Your task to perform on an android device: open app "Microsoft Outlook" (install if not already installed) Image 0: 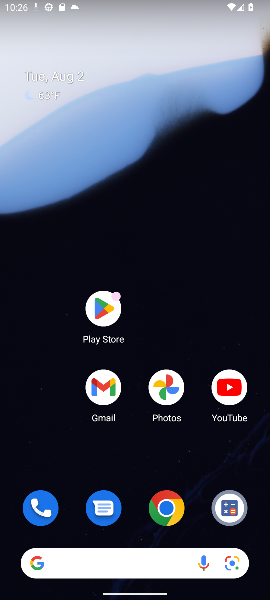
Step 0: click (102, 308)
Your task to perform on an android device: open app "Microsoft Outlook" (install if not already installed) Image 1: 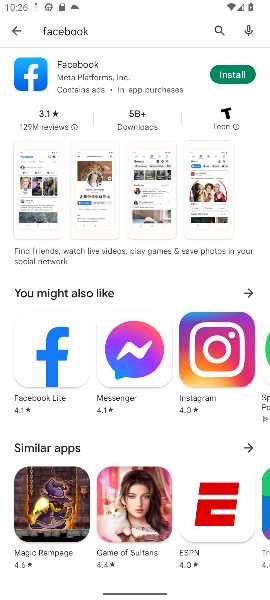
Step 1: click (217, 24)
Your task to perform on an android device: open app "Microsoft Outlook" (install if not already installed) Image 2: 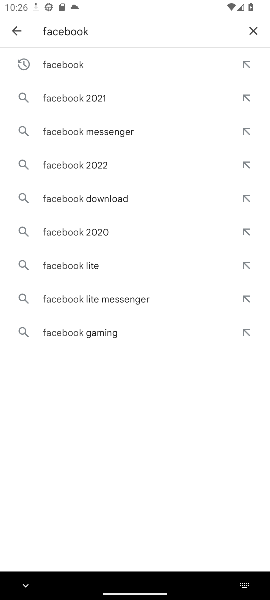
Step 2: click (248, 31)
Your task to perform on an android device: open app "Microsoft Outlook" (install if not already installed) Image 3: 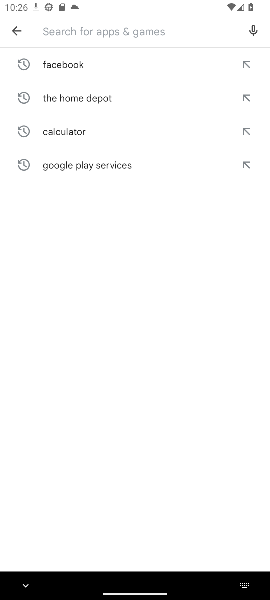
Step 3: type "Microsoft Outlook"
Your task to perform on an android device: open app "Microsoft Outlook" (install if not already installed) Image 4: 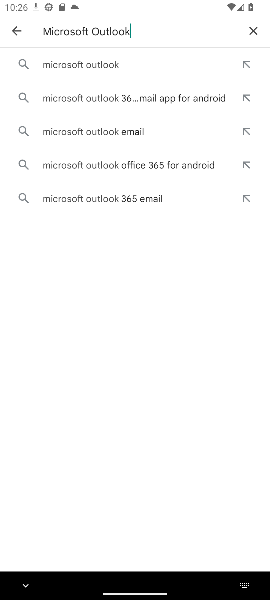
Step 4: click (104, 65)
Your task to perform on an android device: open app "Microsoft Outlook" (install if not already installed) Image 5: 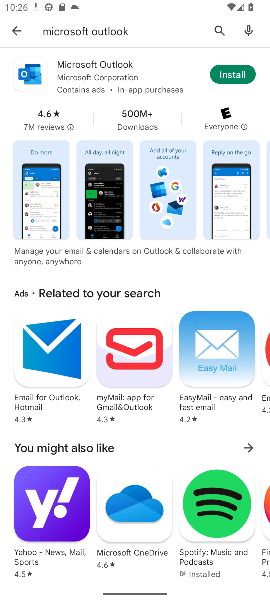
Step 5: click (232, 73)
Your task to perform on an android device: open app "Microsoft Outlook" (install if not already installed) Image 6: 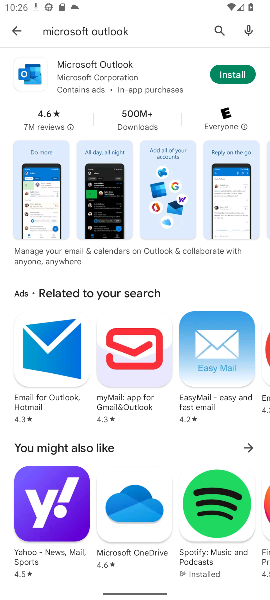
Step 6: click (232, 74)
Your task to perform on an android device: open app "Microsoft Outlook" (install if not already installed) Image 7: 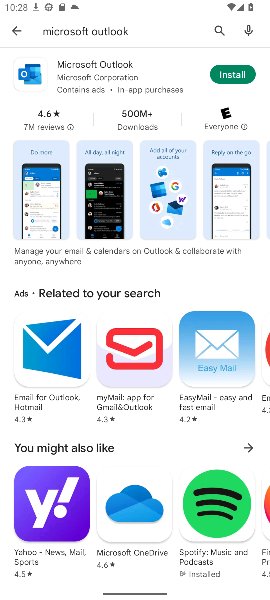
Step 7: task complete